Your task to perform on an android device: turn off smart reply in the gmail app Image 0: 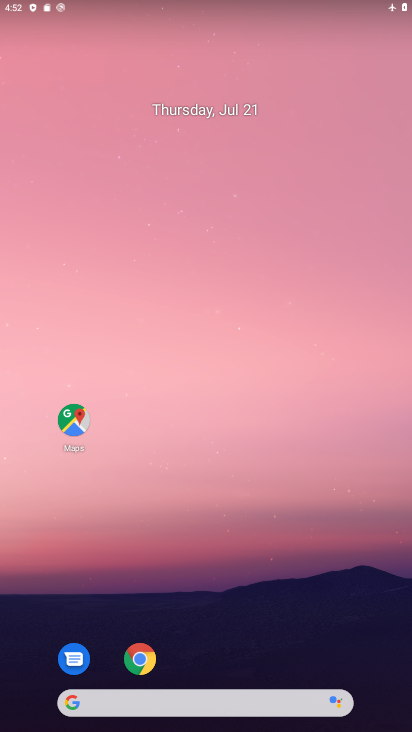
Step 0: drag from (391, 669) to (324, 137)
Your task to perform on an android device: turn off smart reply in the gmail app Image 1: 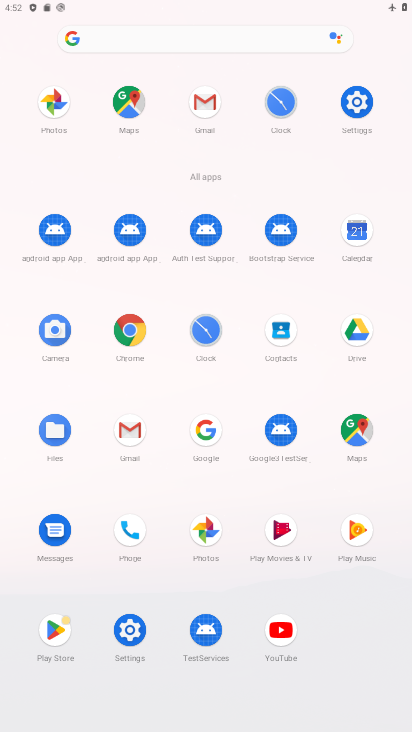
Step 1: click (130, 431)
Your task to perform on an android device: turn off smart reply in the gmail app Image 2: 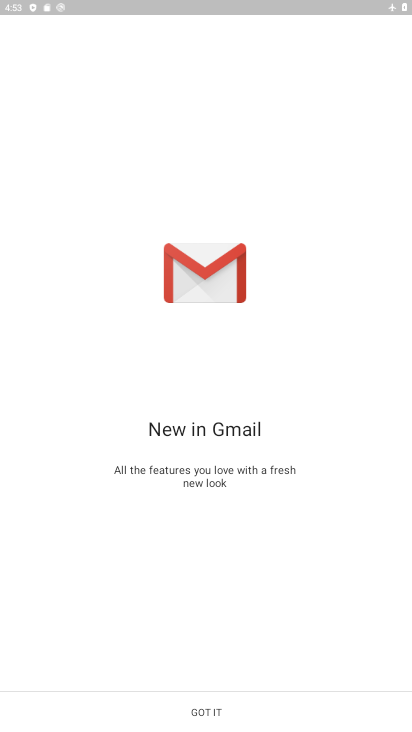
Step 2: click (214, 709)
Your task to perform on an android device: turn off smart reply in the gmail app Image 3: 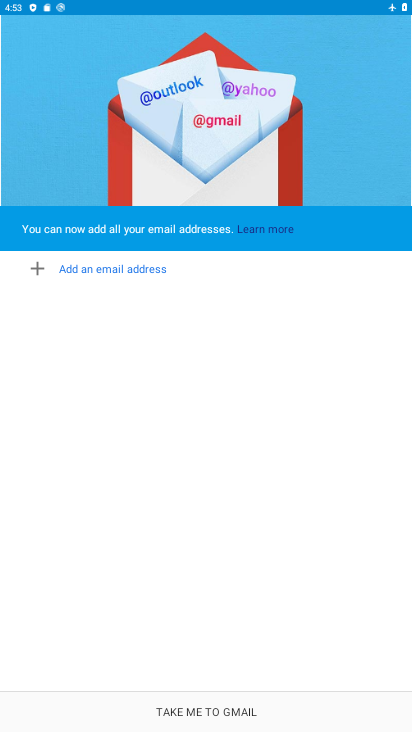
Step 3: click (208, 708)
Your task to perform on an android device: turn off smart reply in the gmail app Image 4: 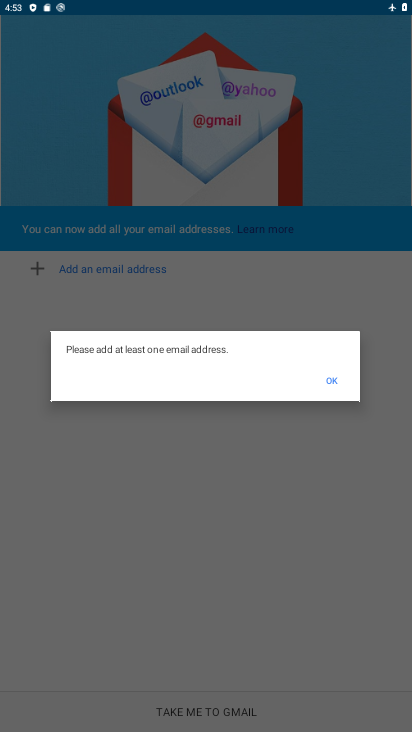
Step 4: click (330, 381)
Your task to perform on an android device: turn off smart reply in the gmail app Image 5: 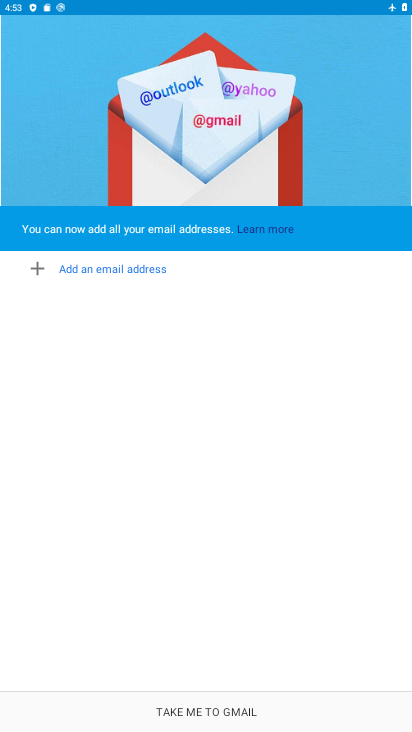
Step 5: click (200, 721)
Your task to perform on an android device: turn off smart reply in the gmail app Image 6: 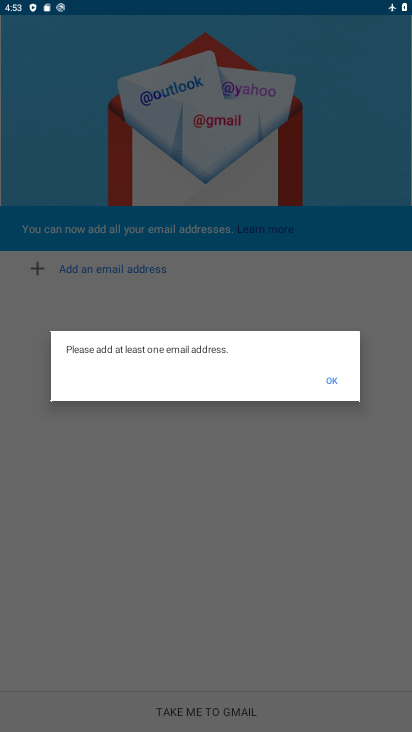
Step 6: click (331, 384)
Your task to perform on an android device: turn off smart reply in the gmail app Image 7: 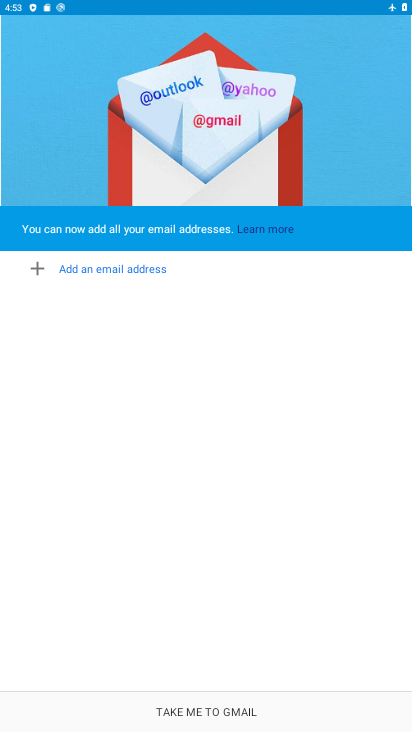
Step 7: click (221, 708)
Your task to perform on an android device: turn off smart reply in the gmail app Image 8: 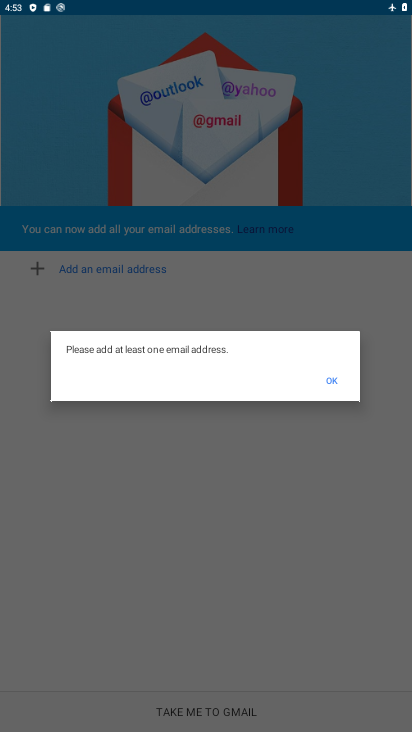
Step 8: task complete